Your task to perform on an android device: Open the map Image 0: 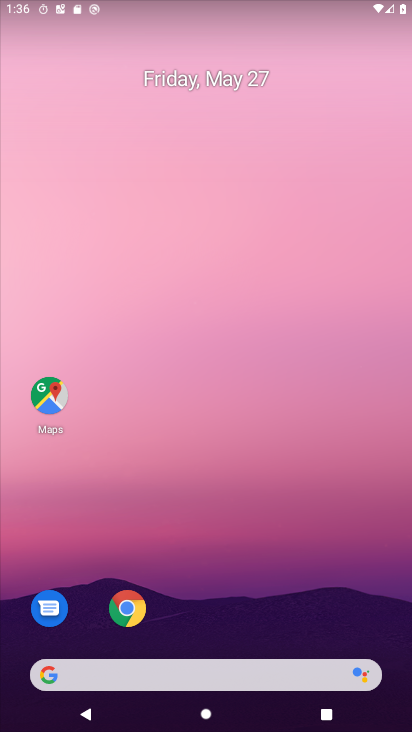
Step 0: drag from (398, 704) to (351, 161)
Your task to perform on an android device: Open the map Image 1: 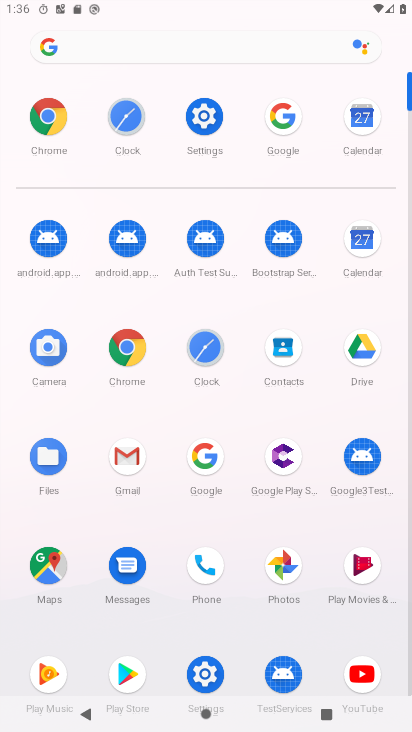
Step 1: click (41, 563)
Your task to perform on an android device: Open the map Image 2: 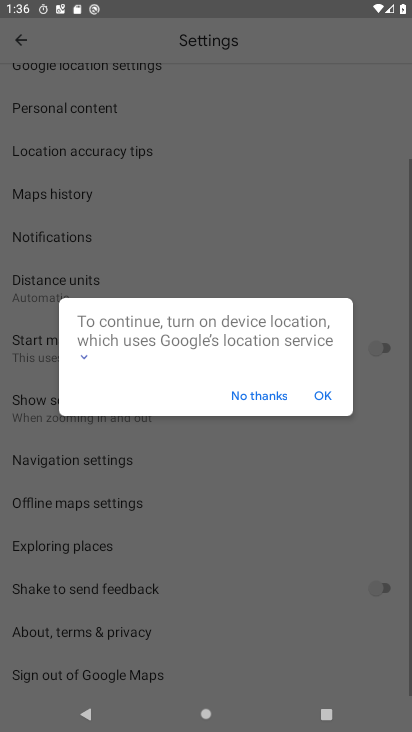
Step 2: click (17, 34)
Your task to perform on an android device: Open the map Image 3: 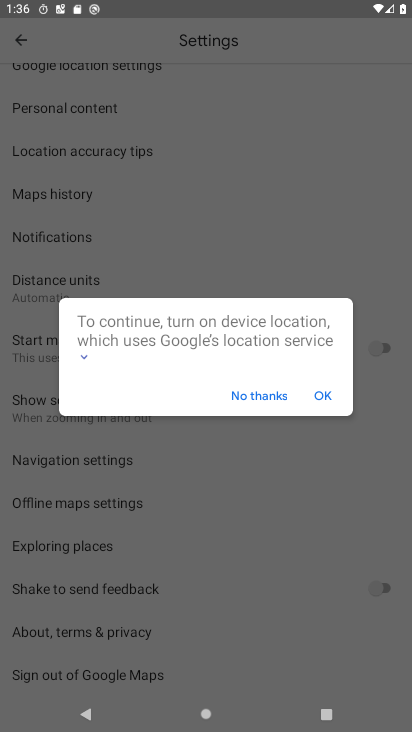
Step 3: click (235, 401)
Your task to perform on an android device: Open the map Image 4: 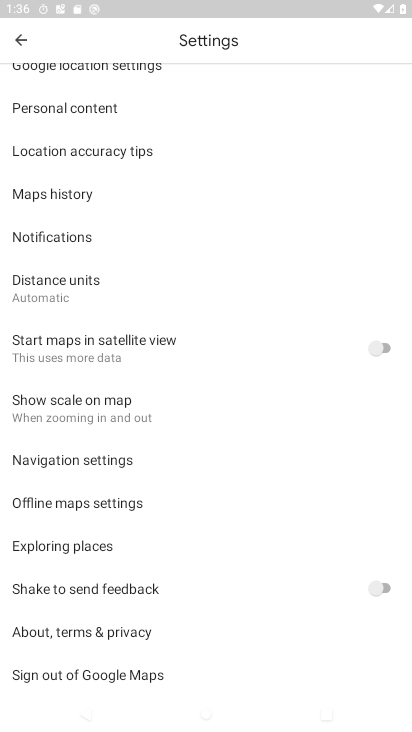
Step 4: click (17, 40)
Your task to perform on an android device: Open the map Image 5: 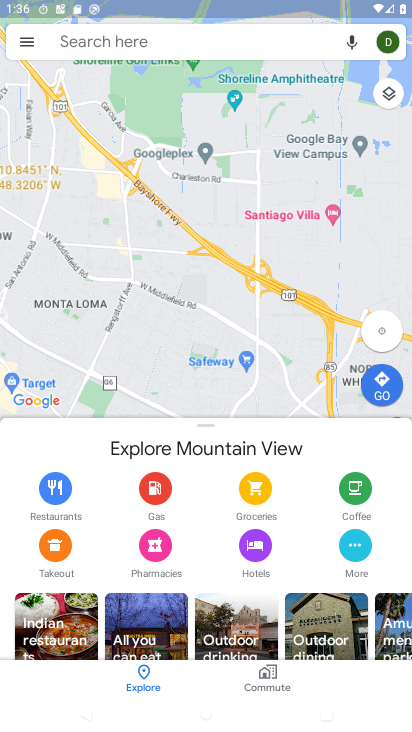
Step 5: task complete